Your task to perform on an android device: Toggle the flashlight Image 0: 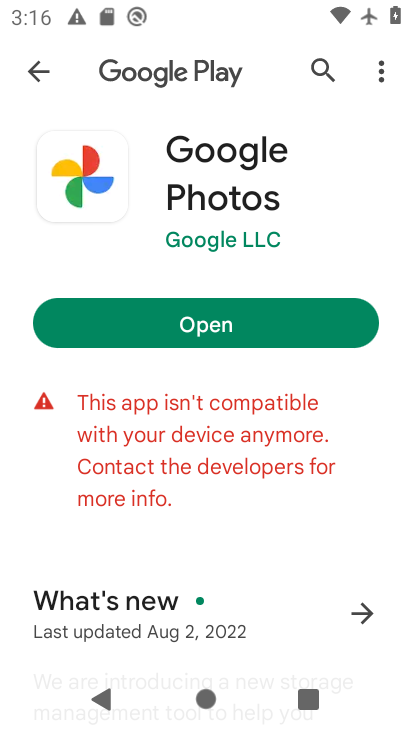
Step 0: press home button
Your task to perform on an android device: Toggle the flashlight Image 1: 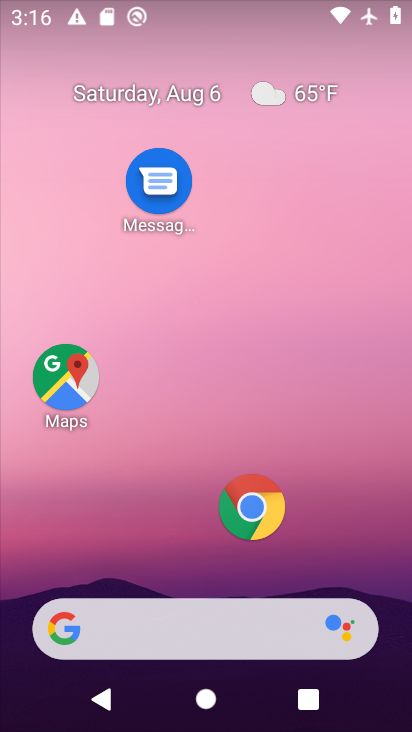
Step 1: drag from (193, 563) to (284, 0)
Your task to perform on an android device: Toggle the flashlight Image 2: 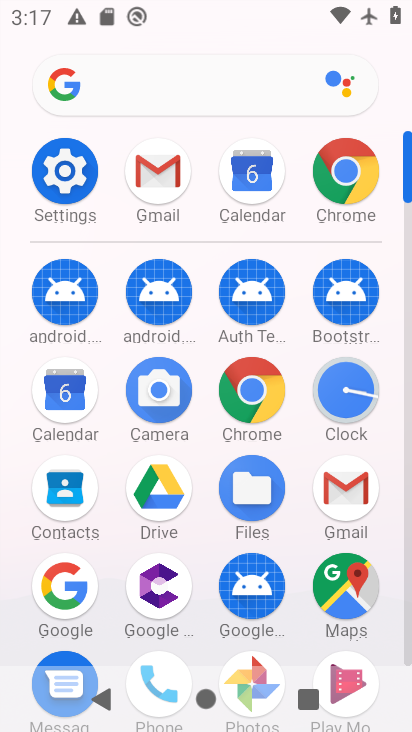
Step 2: click (62, 199)
Your task to perform on an android device: Toggle the flashlight Image 3: 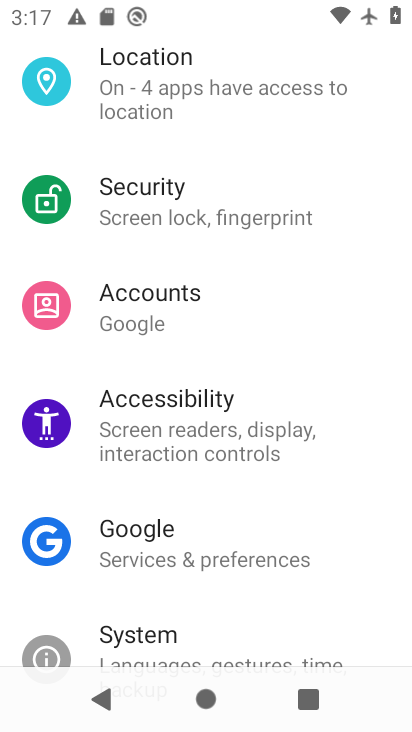
Step 3: drag from (238, 117) to (262, 655)
Your task to perform on an android device: Toggle the flashlight Image 4: 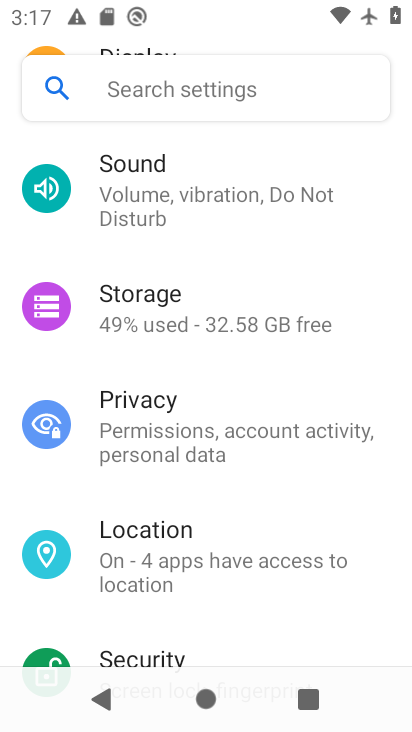
Step 4: click (191, 87)
Your task to perform on an android device: Toggle the flashlight Image 5: 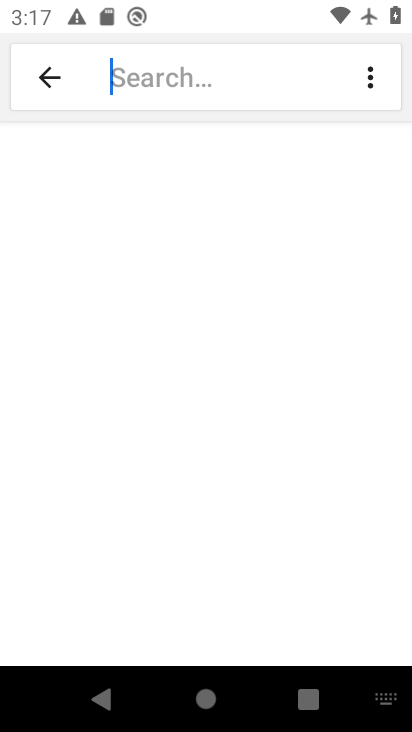
Step 5: type "flashlight"
Your task to perform on an android device: Toggle the flashlight Image 6: 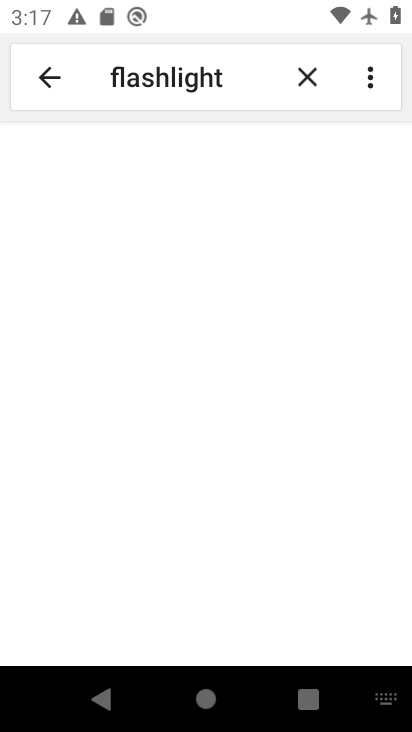
Step 6: click (161, 173)
Your task to perform on an android device: Toggle the flashlight Image 7: 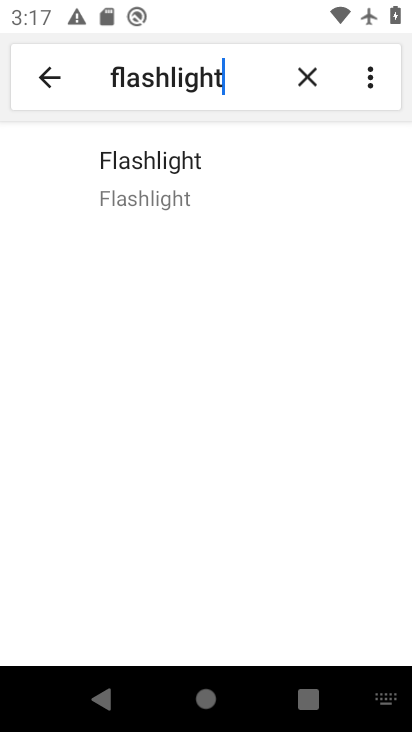
Step 7: click (166, 173)
Your task to perform on an android device: Toggle the flashlight Image 8: 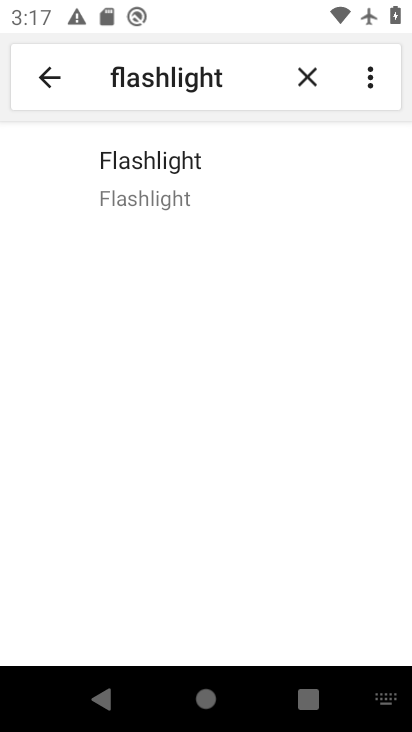
Step 8: click (168, 172)
Your task to perform on an android device: Toggle the flashlight Image 9: 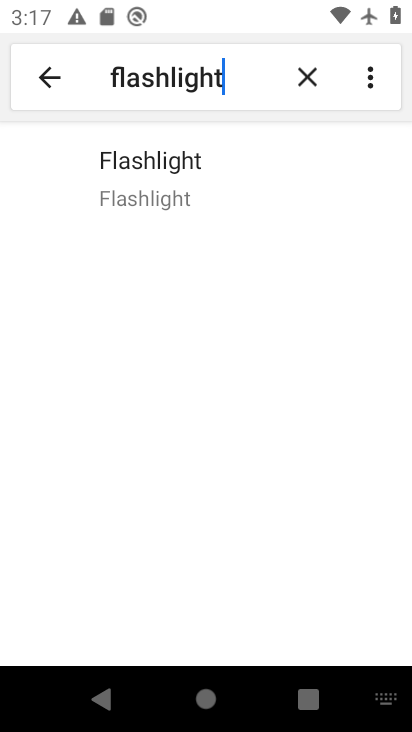
Step 9: task complete